Your task to perform on an android device: Open battery settings Image 0: 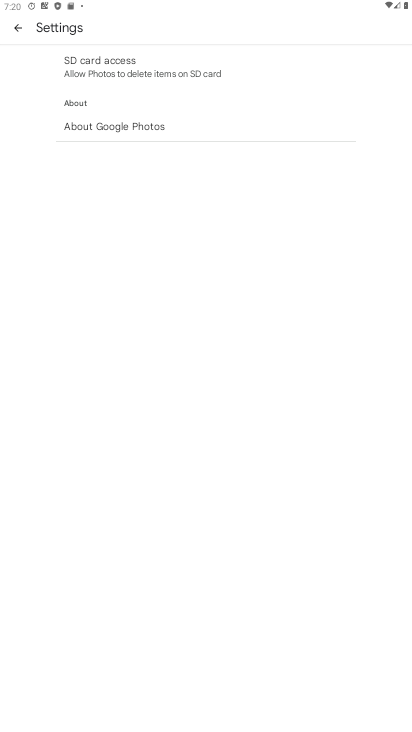
Step 0: press home button
Your task to perform on an android device: Open battery settings Image 1: 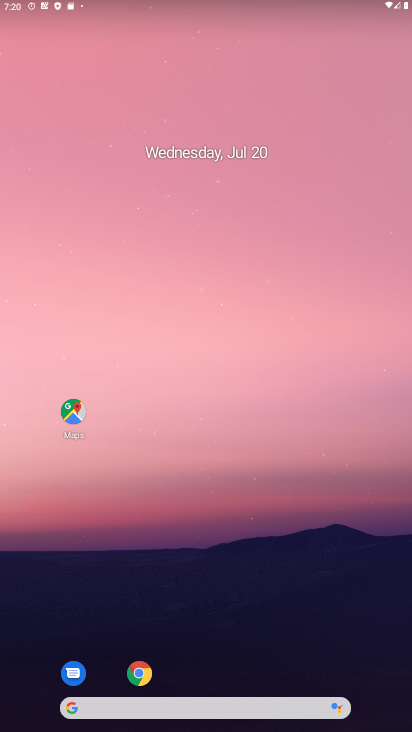
Step 1: drag from (377, 639) to (208, 50)
Your task to perform on an android device: Open battery settings Image 2: 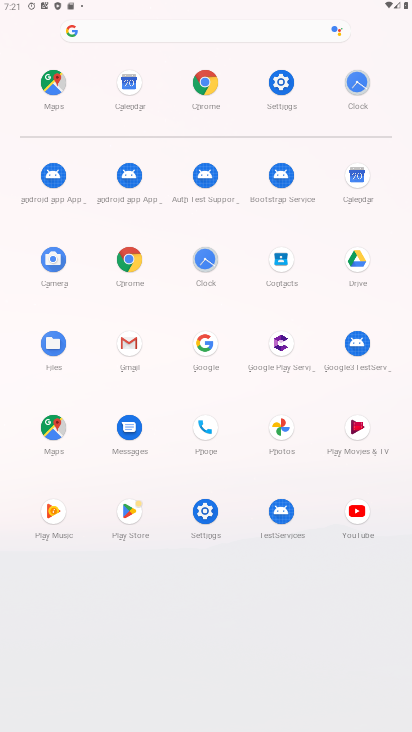
Step 2: click (208, 506)
Your task to perform on an android device: Open battery settings Image 3: 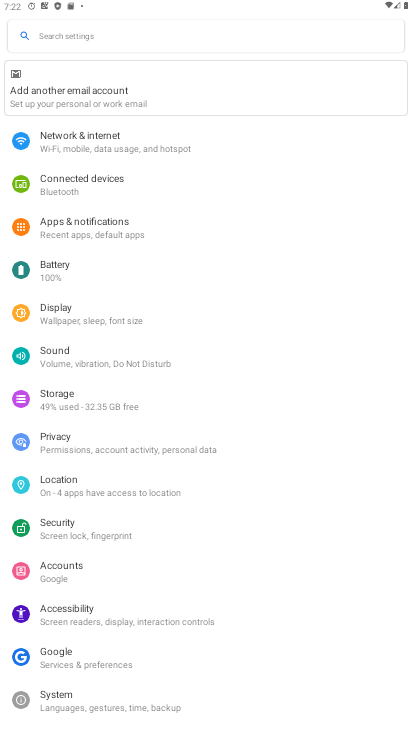
Step 3: click (67, 271)
Your task to perform on an android device: Open battery settings Image 4: 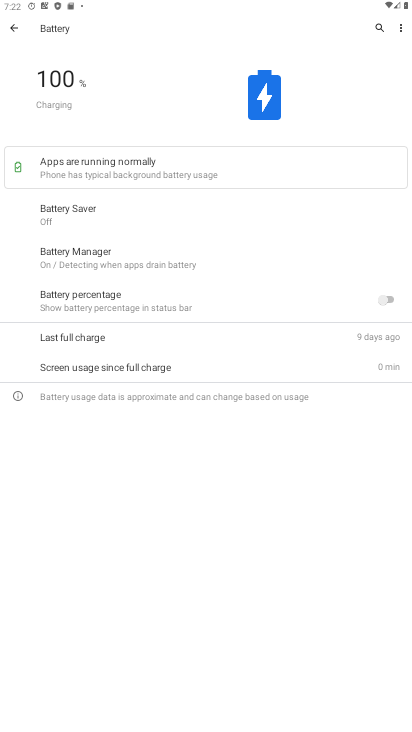
Step 4: task complete